Your task to perform on an android device: Add bose soundsport free to the cart on costco.com Image 0: 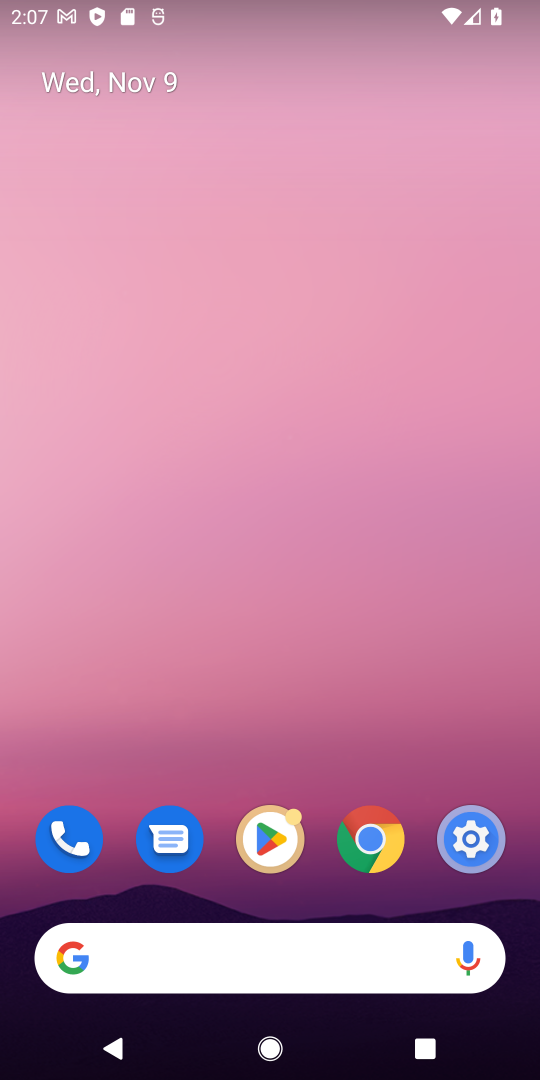
Step 0: click (226, 979)
Your task to perform on an android device: Add bose soundsport free to the cart on costco.com Image 1: 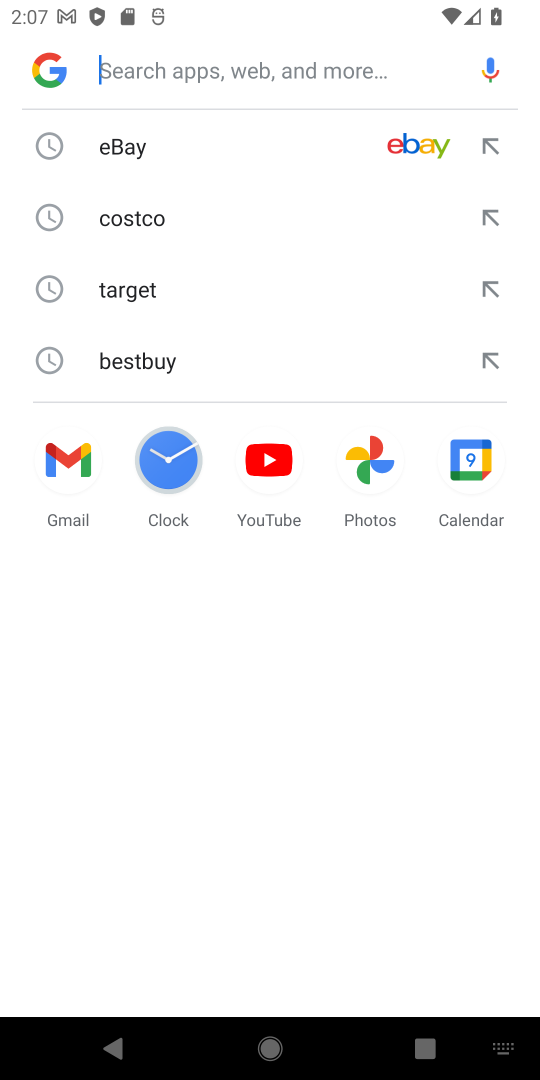
Step 1: type "costco"
Your task to perform on an android device: Add bose soundsport free to the cart on costco.com Image 2: 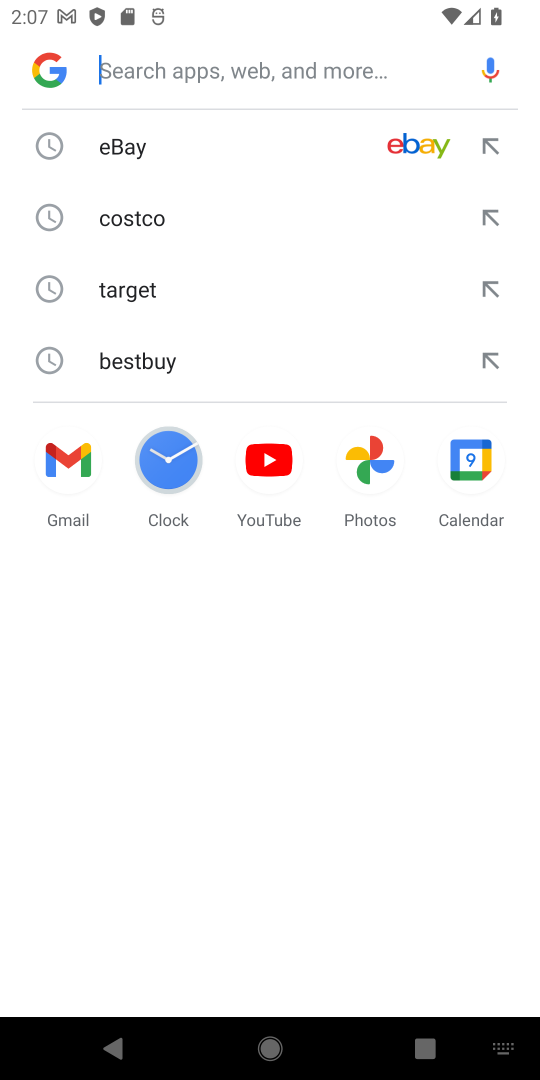
Step 2: click (163, 233)
Your task to perform on an android device: Add bose soundsport free to the cart on costco.com Image 3: 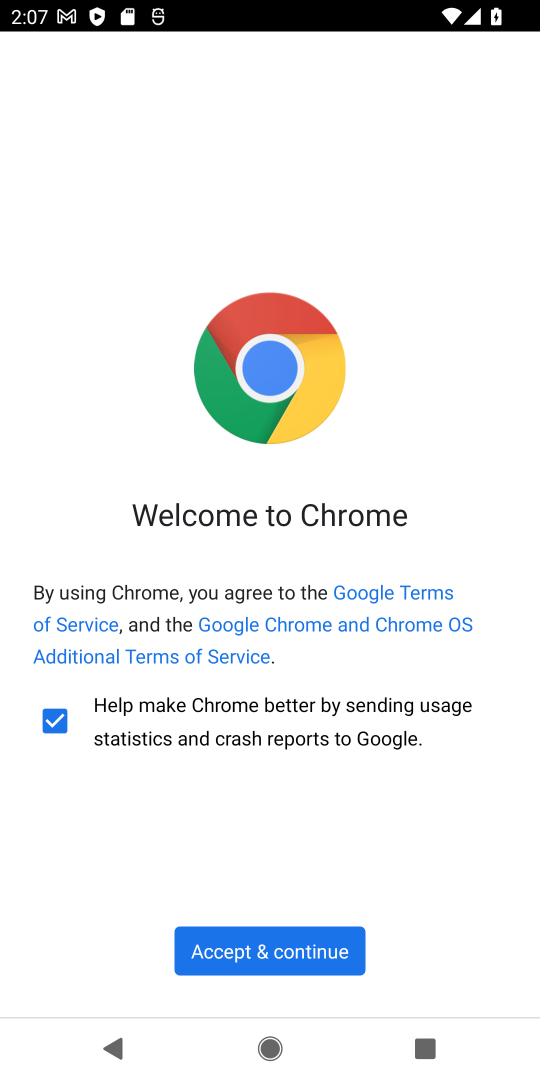
Step 3: click (269, 950)
Your task to perform on an android device: Add bose soundsport free to the cart on costco.com Image 4: 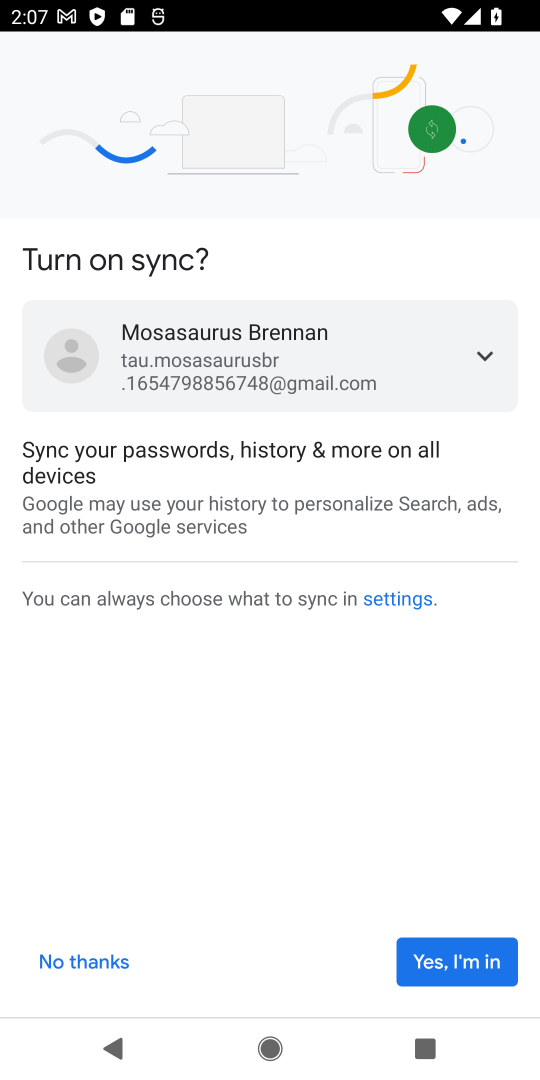
Step 4: click (425, 953)
Your task to perform on an android device: Add bose soundsport free to the cart on costco.com Image 5: 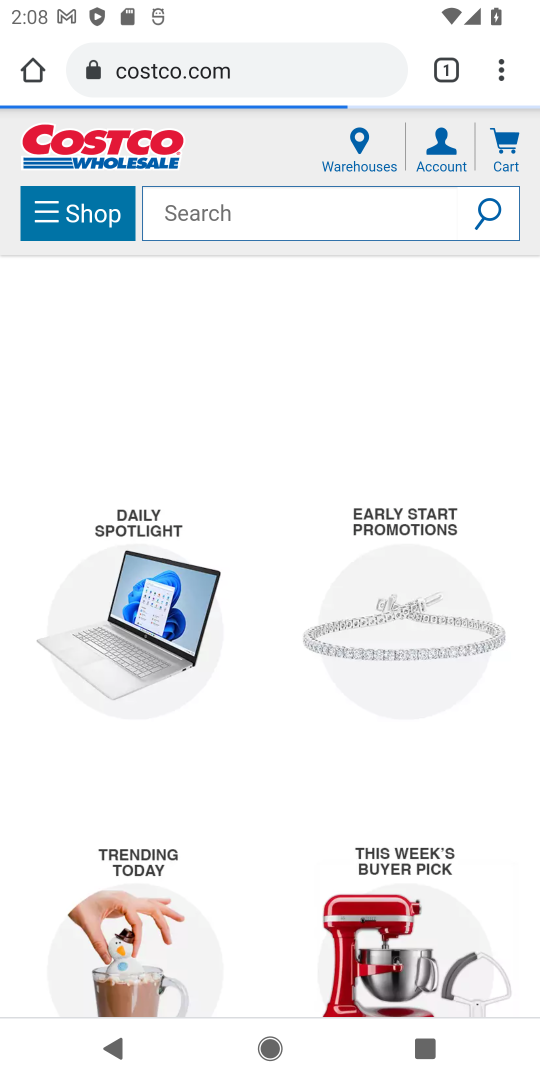
Step 5: click (270, 226)
Your task to perform on an android device: Add bose soundsport free to the cart on costco.com Image 6: 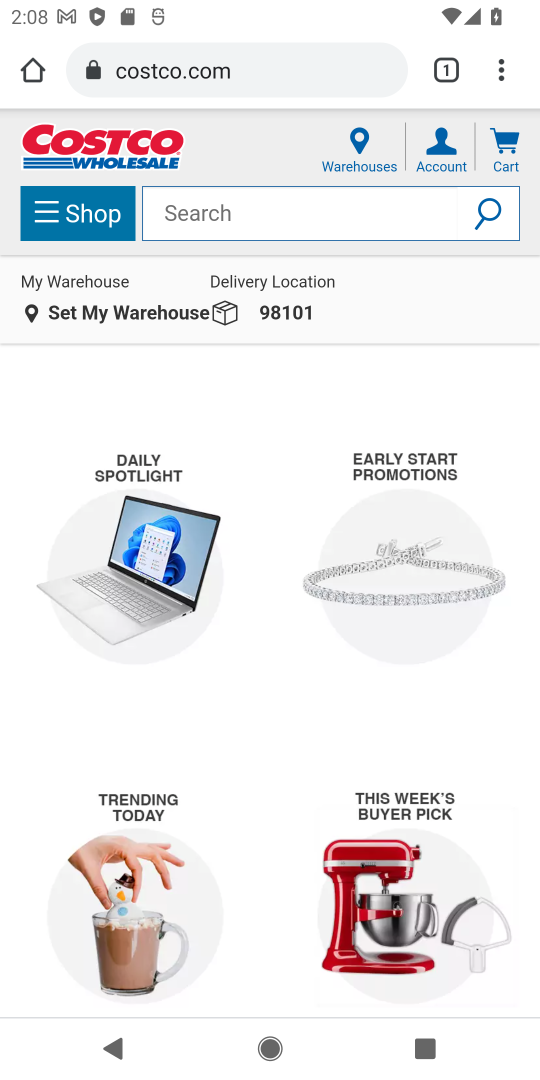
Step 6: type "bose sountsport"
Your task to perform on an android device: Add bose soundsport free to the cart on costco.com Image 7: 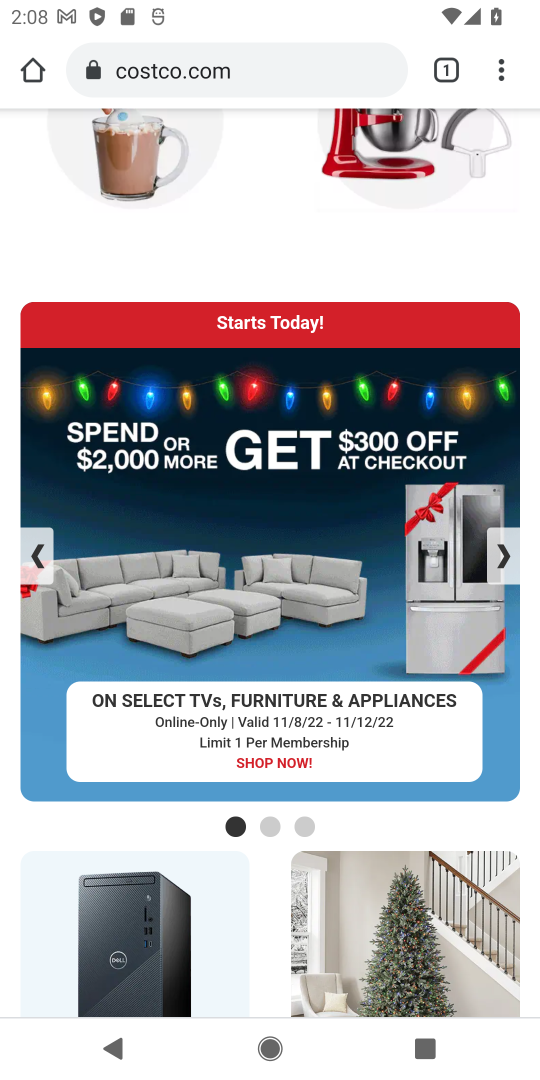
Step 7: drag from (206, 454) to (185, 978)
Your task to perform on an android device: Add bose soundsport free to the cart on costco.com Image 8: 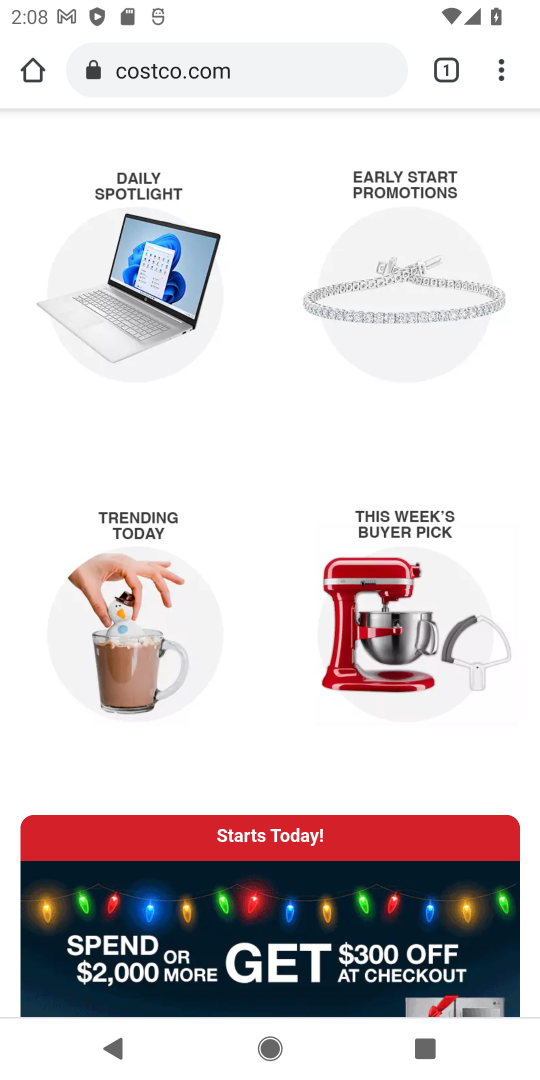
Step 8: drag from (270, 276) to (283, 911)
Your task to perform on an android device: Add bose soundsport free to the cart on costco.com Image 9: 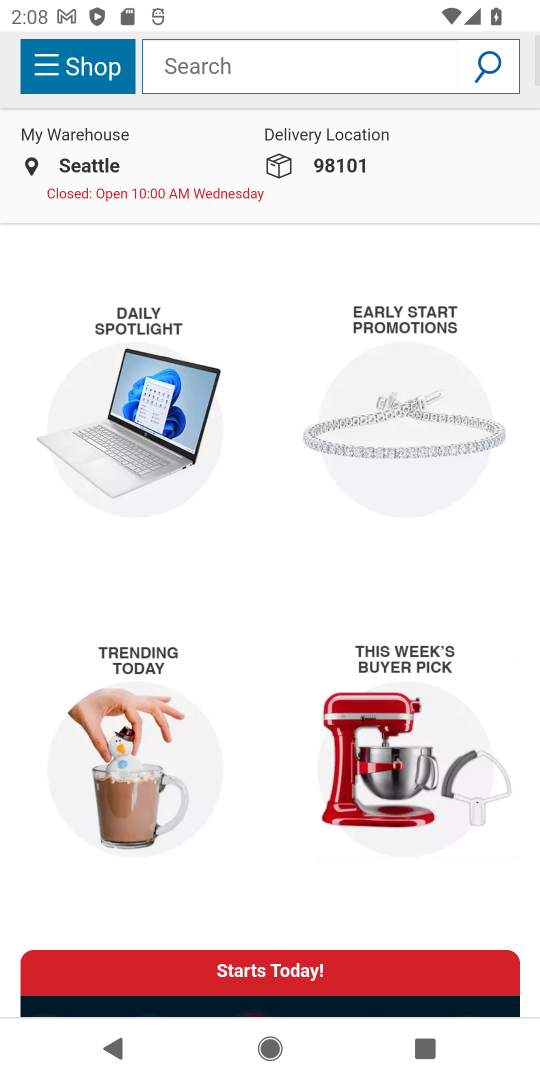
Step 9: click (251, 232)
Your task to perform on an android device: Add bose soundsport free to the cart on costco.com Image 10: 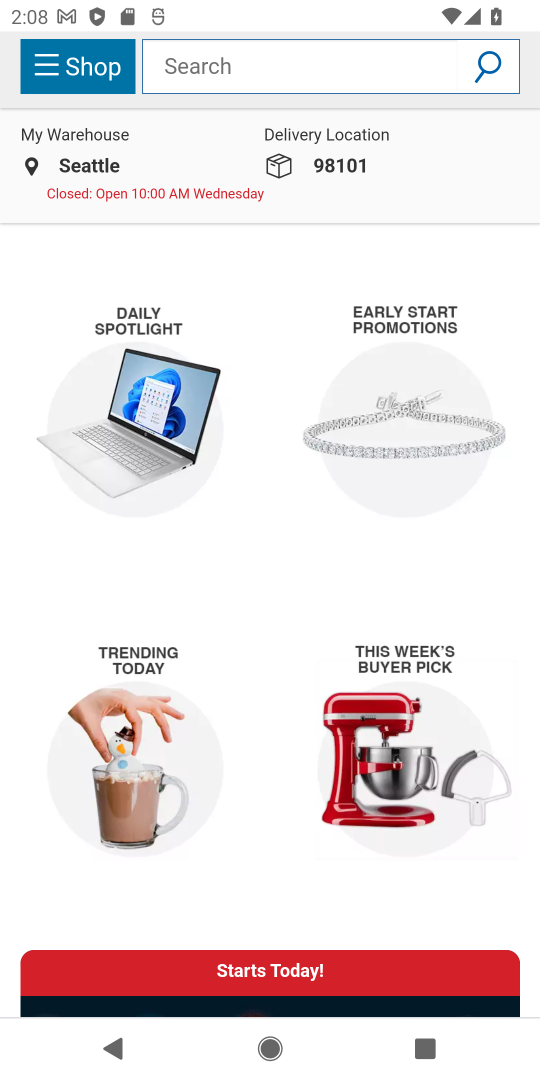
Step 10: click (252, 71)
Your task to perform on an android device: Add bose soundsport free to the cart on costco.com Image 11: 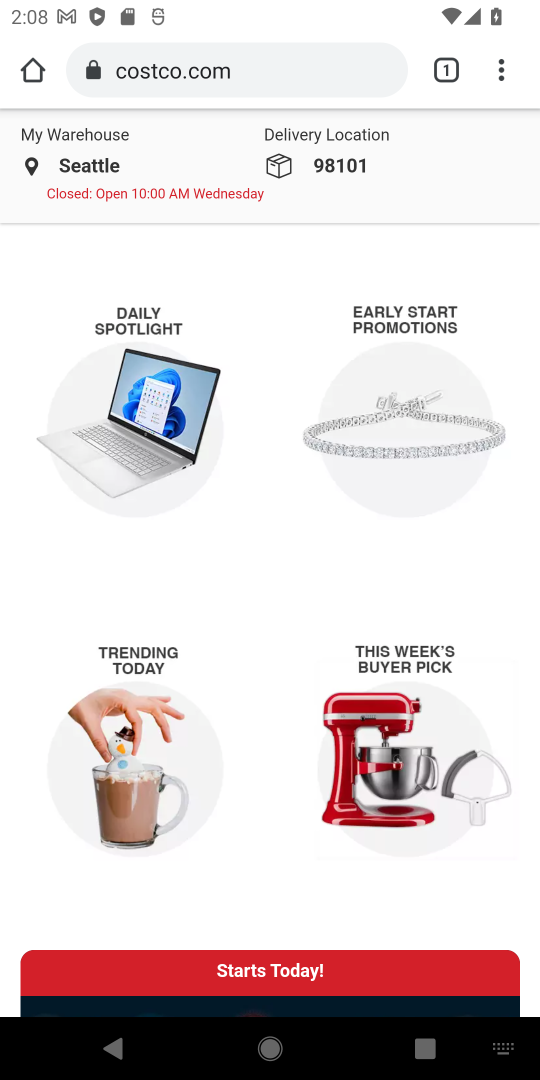
Step 11: type "bose soundsport"
Your task to perform on an android device: Add bose soundsport free to the cart on costco.com Image 12: 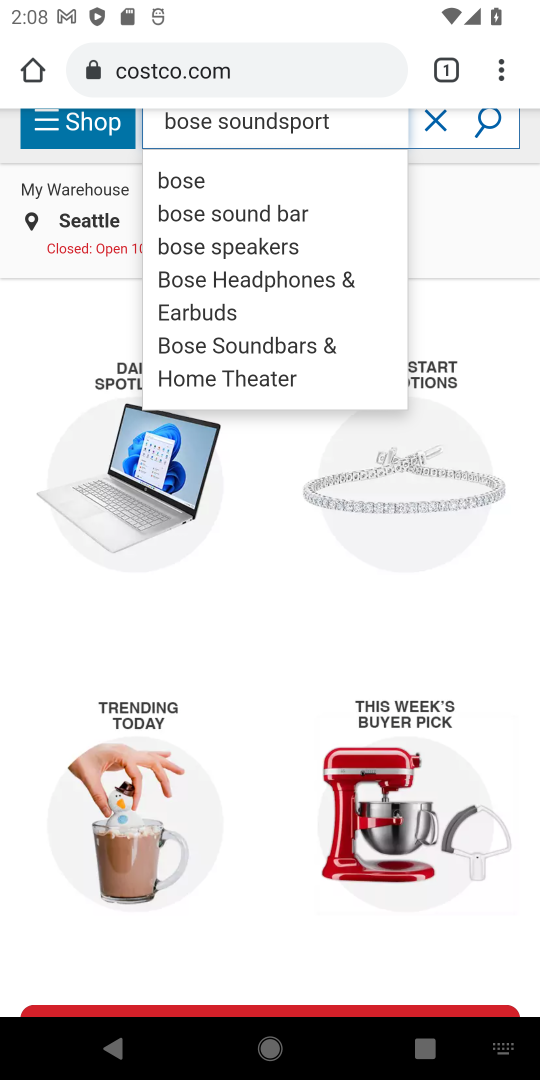
Step 12: click (219, 219)
Your task to perform on an android device: Add bose soundsport free to the cart on costco.com Image 13: 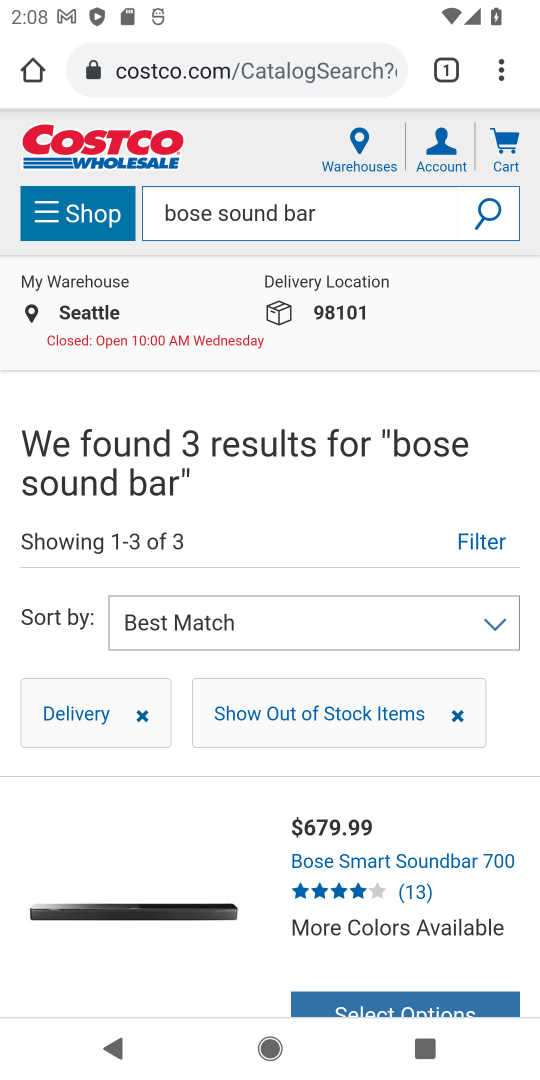
Step 13: click (357, 987)
Your task to perform on an android device: Add bose soundsport free to the cart on costco.com Image 14: 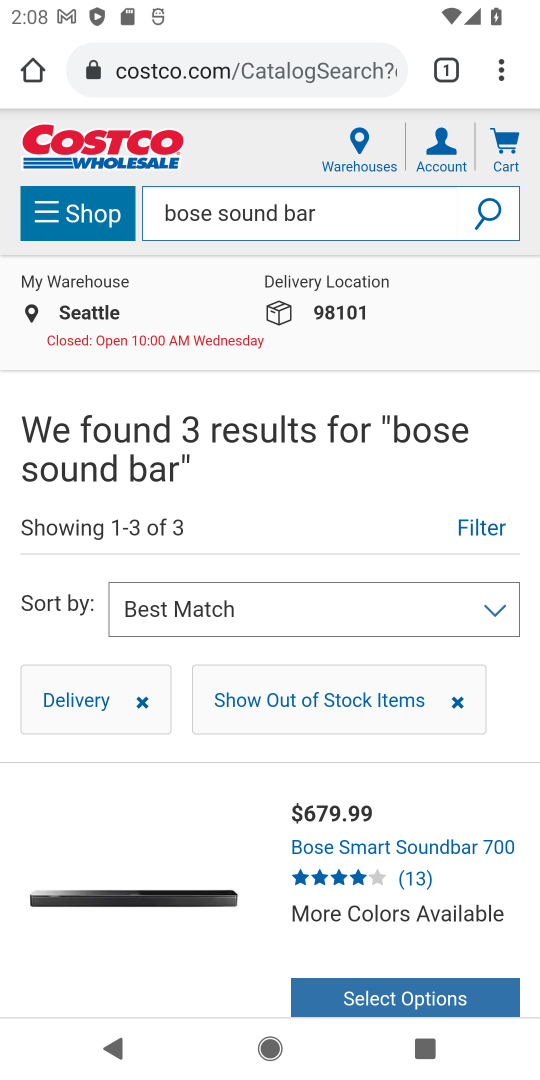
Step 14: task complete